Your task to perform on an android device: turn on wifi Image 0: 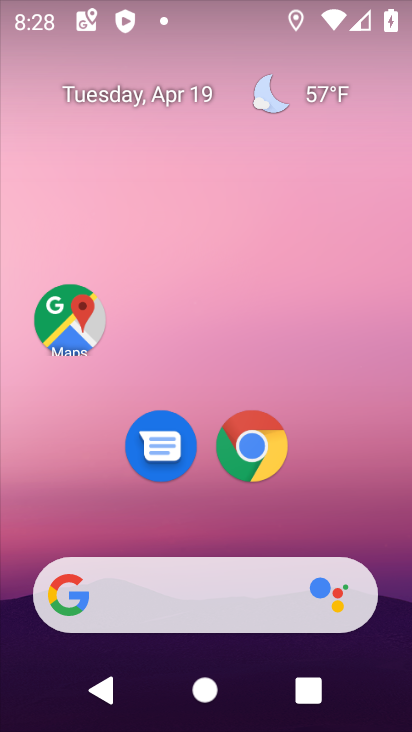
Step 0: drag from (323, 391) to (311, 155)
Your task to perform on an android device: turn on wifi Image 1: 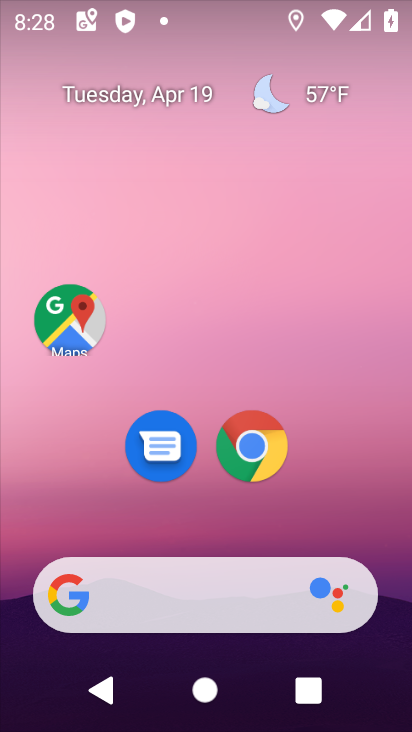
Step 1: drag from (319, 490) to (293, 98)
Your task to perform on an android device: turn on wifi Image 2: 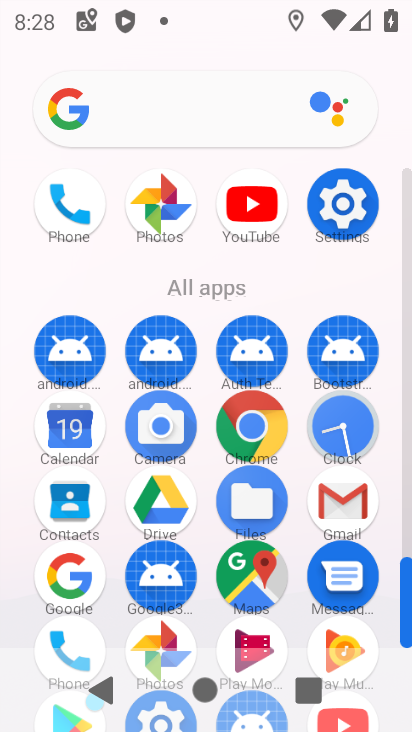
Step 2: click (349, 215)
Your task to perform on an android device: turn on wifi Image 3: 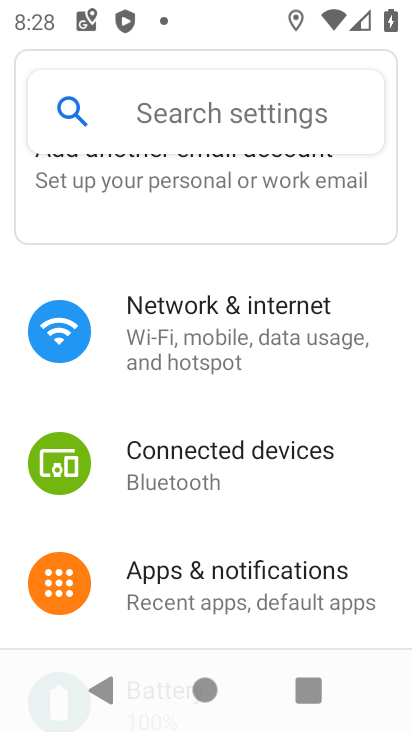
Step 3: click (196, 336)
Your task to perform on an android device: turn on wifi Image 4: 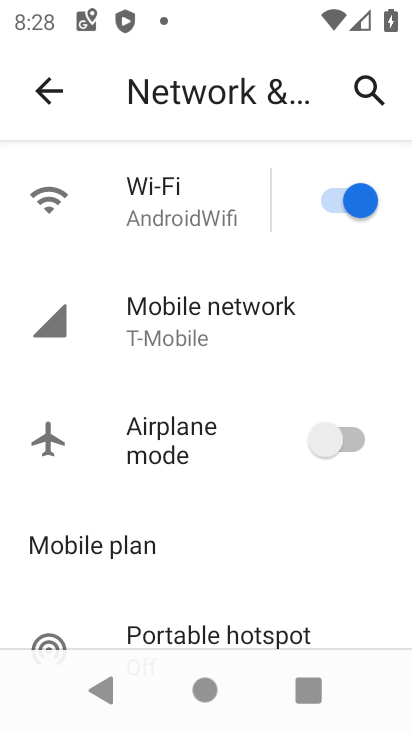
Step 4: task complete